Your task to perform on an android device: show emergency info Image 0: 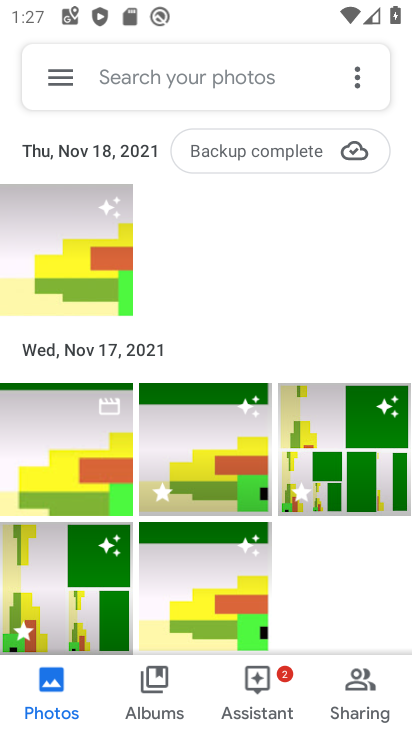
Step 0: press home button
Your task to perform on an android device: show emergency info Image 1: 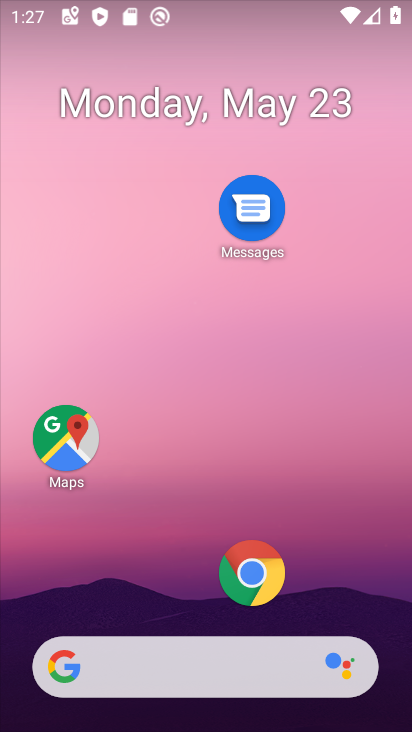
Step 1: drag from (162, 470) to (221, 57)
Your task to perform on an android device: show emergency info Image 2: 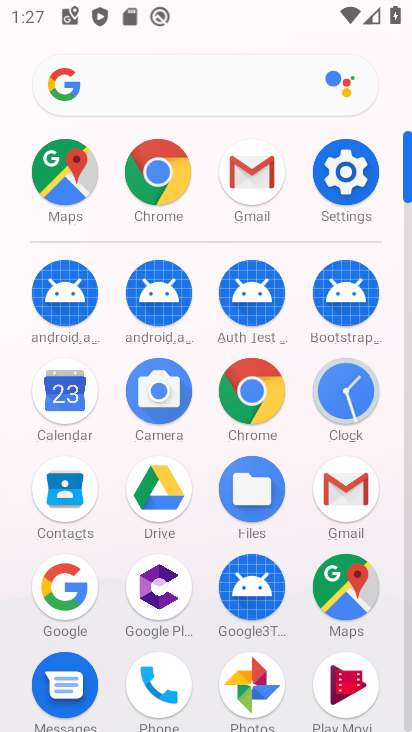
Step 2: click (348, 163)
Your task to perform on an android device: show emergency info Image 3: 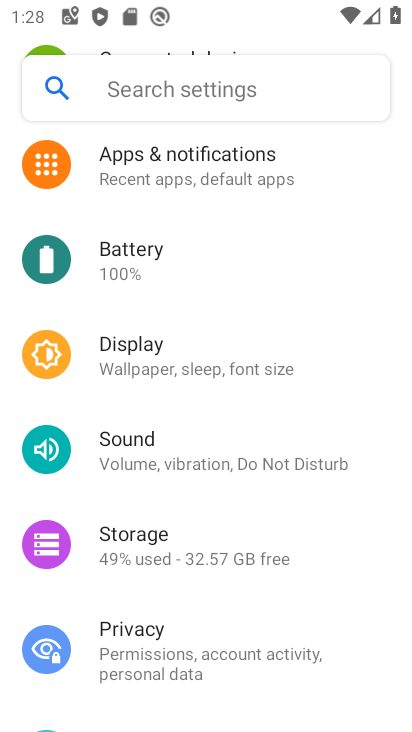
Step 3: drag from (293, 470) to (375, 70)
Your task to perform on an android device: show emergency info Image 4: 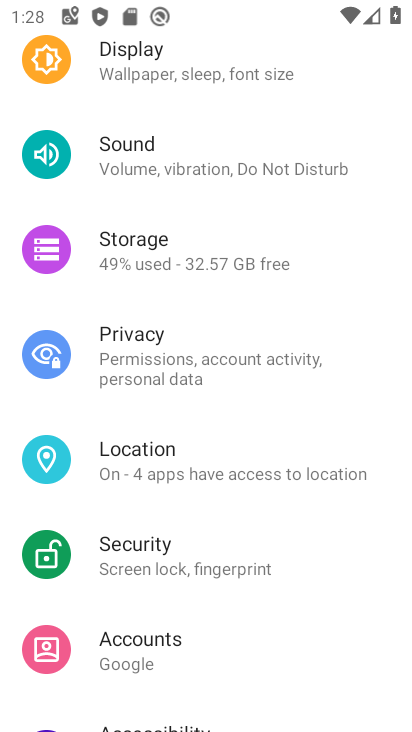
Step 4: drag from (280, 485) to (322, 110)
Your task to perform on an android device: show emergency info Image 5: 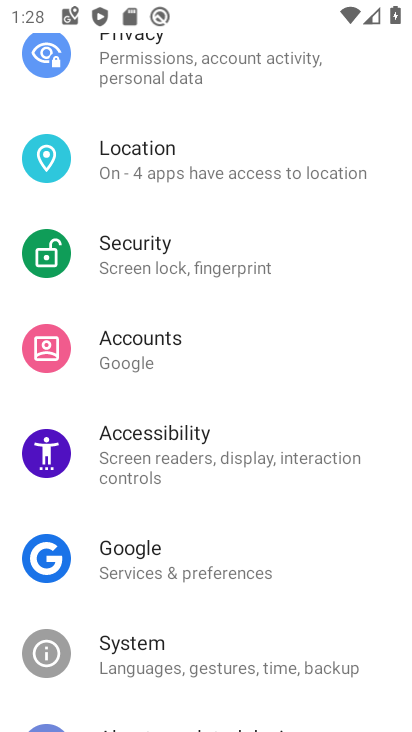
Step 5: drag from (338, 600) to (386, 262)
Your task to perform on an android device: show emergency info Image 6: 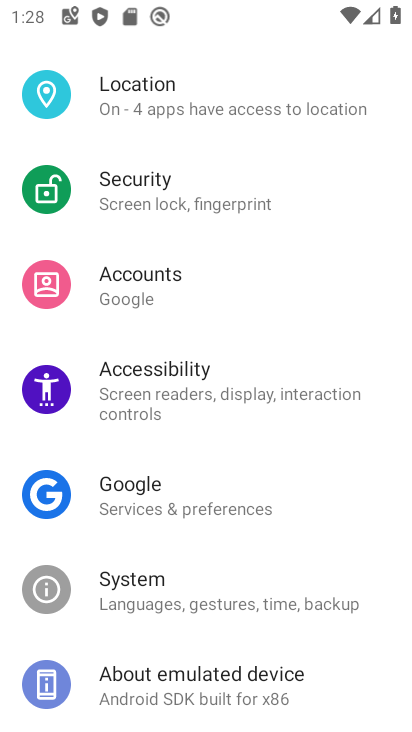
Step 6: click (279, 689)
Your task to perform on an android device: show emergency info Image 7: 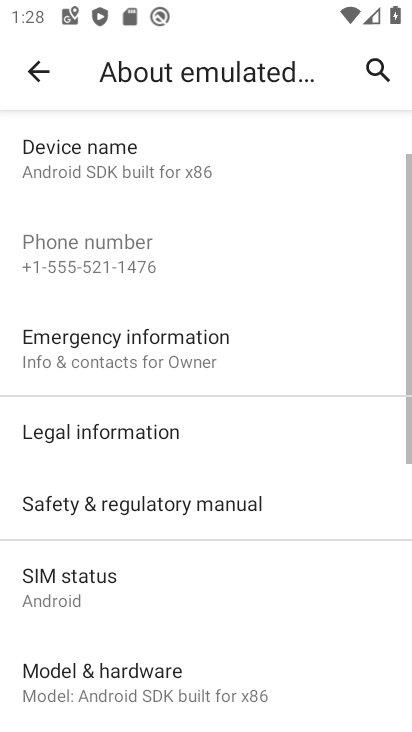
Step 7: click (218, 350)
Your task to perform on an android device: show emergency info Image 8: 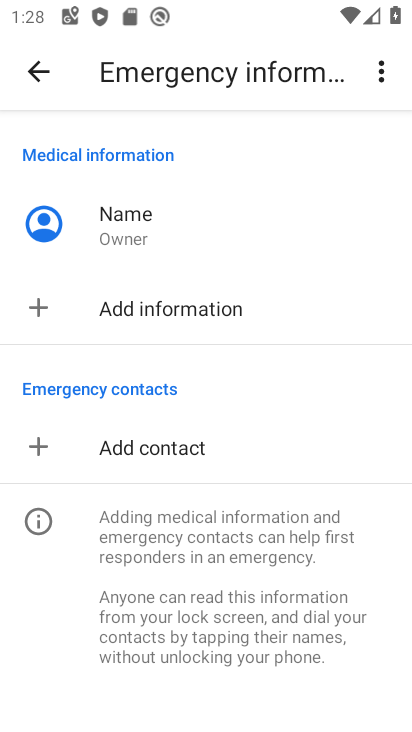
Step 8: task complete